Your task to perform on an android device: Open CNN.com Image 0: 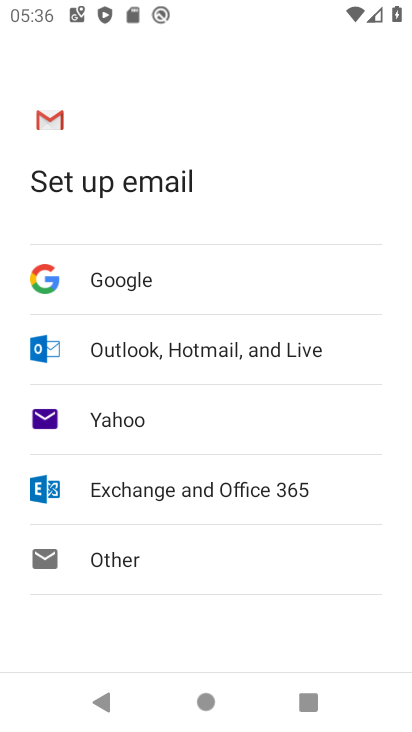
Step 0: press home button
Your task to perform on an android device: Open CNN.com Image 1: 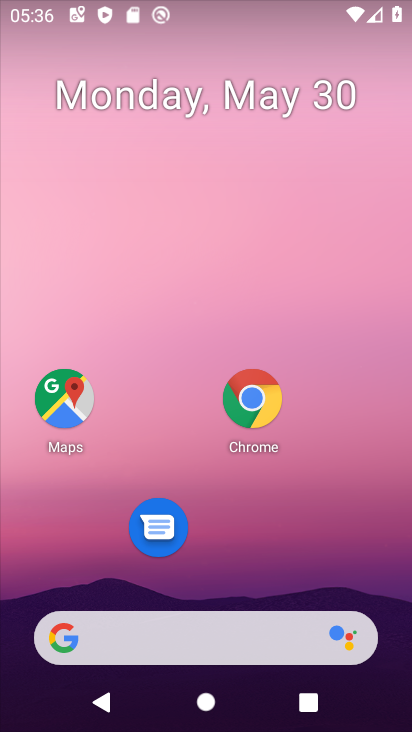
Step 1: drag from (238, 679) to (230, 79)
Your task to perform on an android device: Open CNN.com Image 2: 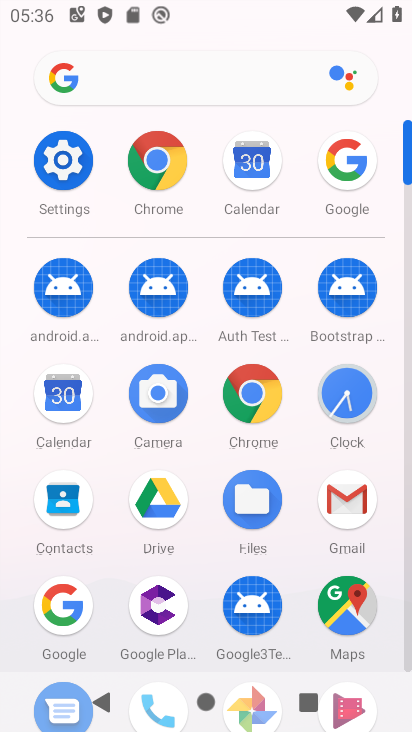
Step 2: click (251, 398)
Your task to perform on an android device: Open CNN.com Image 3: 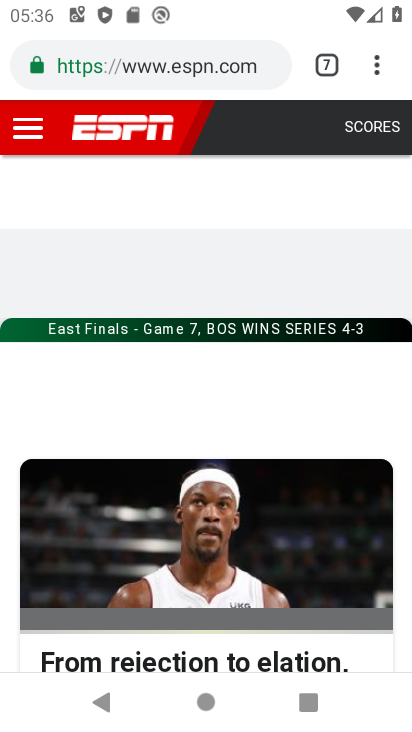
Step 3: click (377, 70)
Your task to perform on an android device: Open CNN.com Image 4: 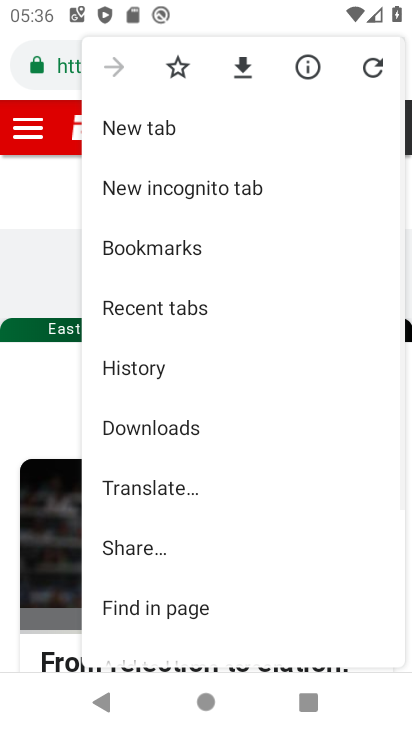
Step 4: click (164, 129)
Your task to perform on an android device: Open CNN.com Image 5: 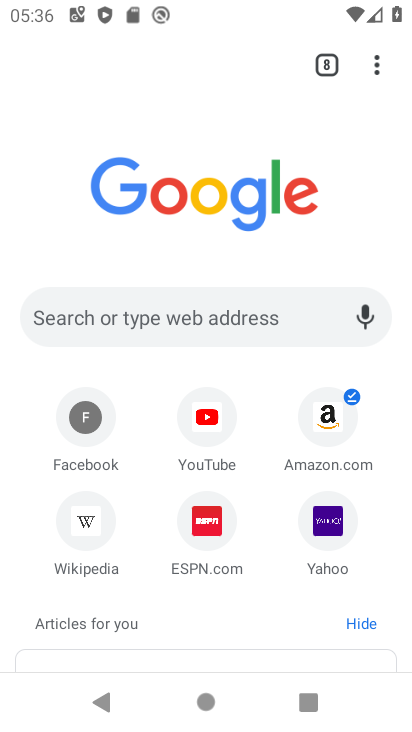
Step 5: click (224, 308)
Your task to perform on an android device: Open CNN.com Image 6: 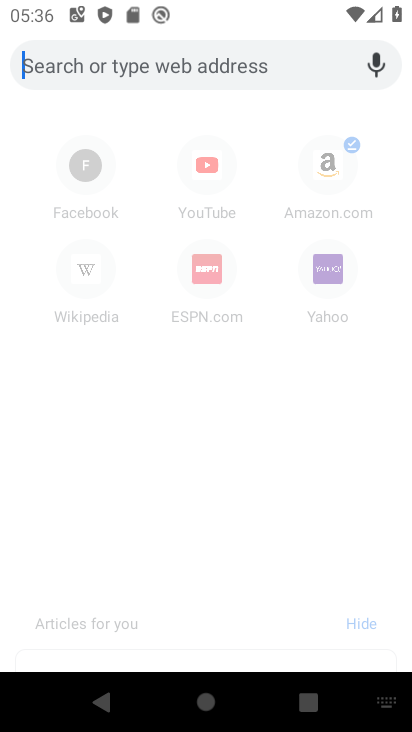
Step 6: type "CNN.com"
Your task to perform on an android device: Open CNN.com Image 7: 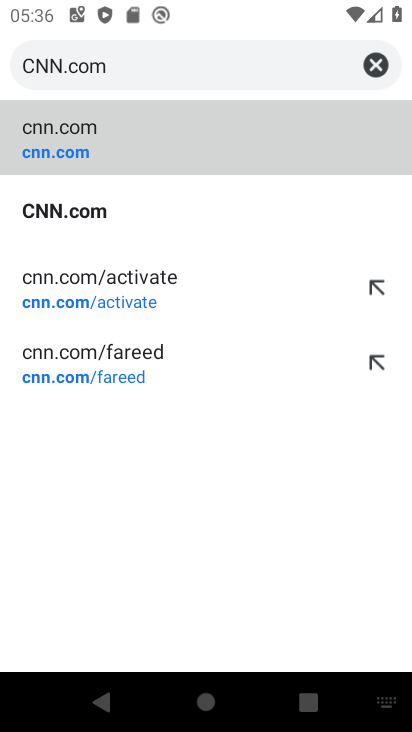
Step 7: click (45, 124)
Your task to perform on an android device: Open CNN.com Image 8: 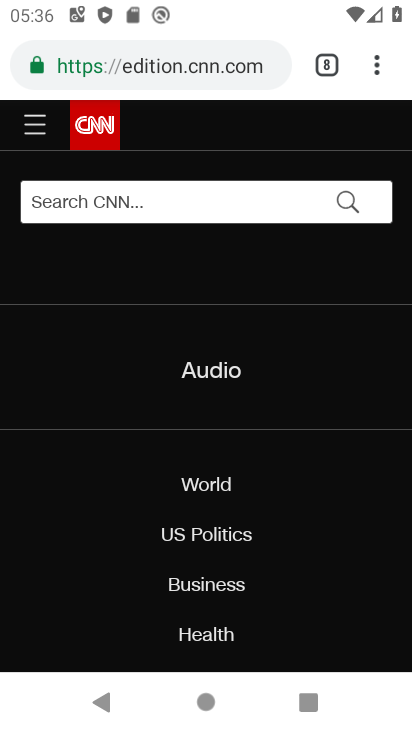
Step 8: task complete